Your task to perform on an android device: Go to ESPN.com Image 0: 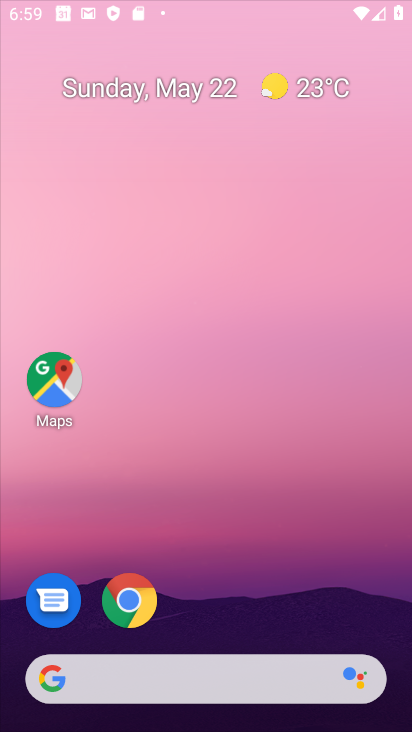
Step 0: click (280, 320)
Your task to perform on an android device: Go to ESPN.com Image 1: 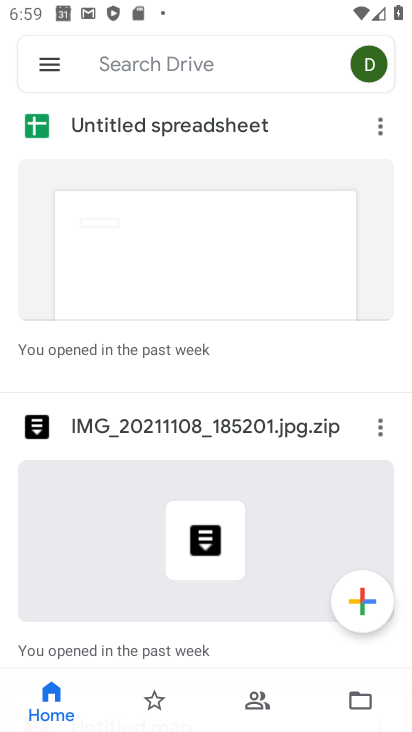
Step 1: press home button
Your task to perform on an android device: Go to ESPN.com Image 2: 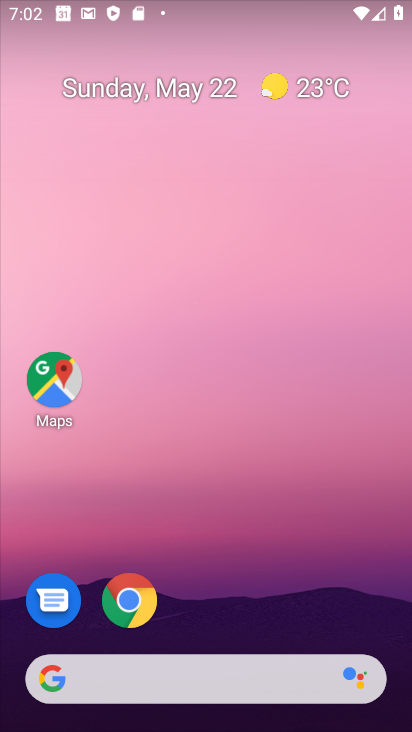
Step 2: drag from (289, 525) to (203, 159)
Your task to perform on an android device: Go to ESPN.com Image 3: 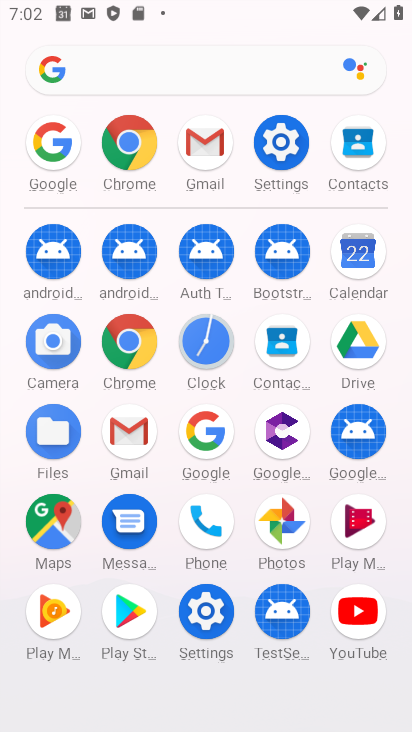
Step 3: click (63, 146)
Your task to perform on an android device: Go to ESPN.com Image 4: 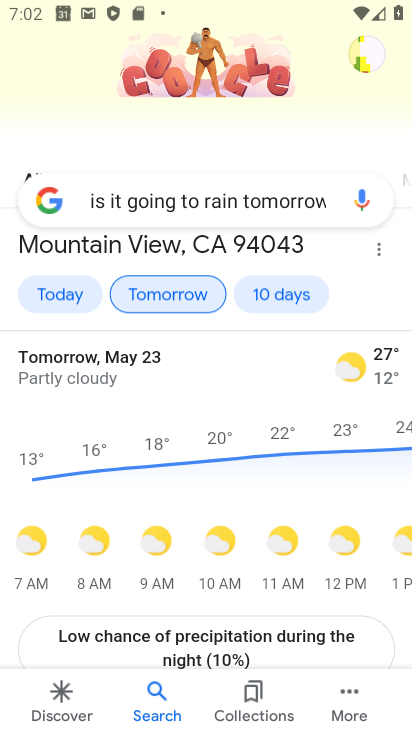
Step 4: press back button
Your task to perform on an android device: Go to ESPN.com Image 5: 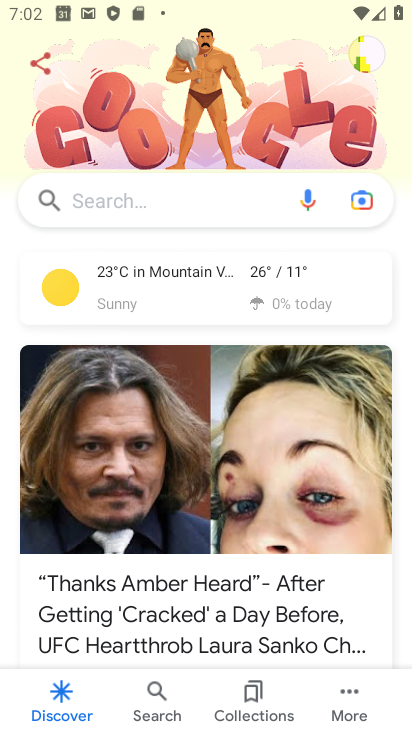
Step 5: click (174, 190)
Your task to perform on an android device: Go to ESPN.com Image 6: 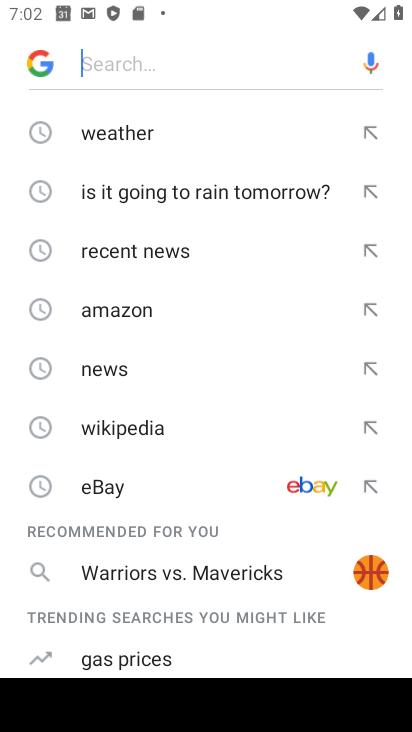
Step 6: drag from (151, 549) to (151, 174)
Your task to perform on an android device: Go to ESPN.com Image 7: 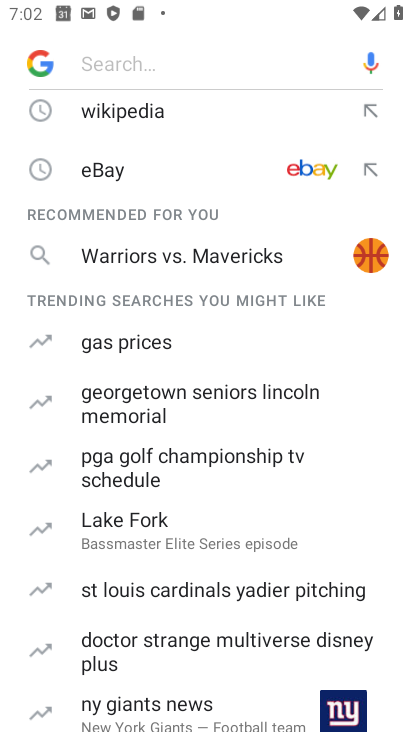
Step 7: type "espn.com"
Your task to perform on an android device: Go to ESPN.com Image 8: 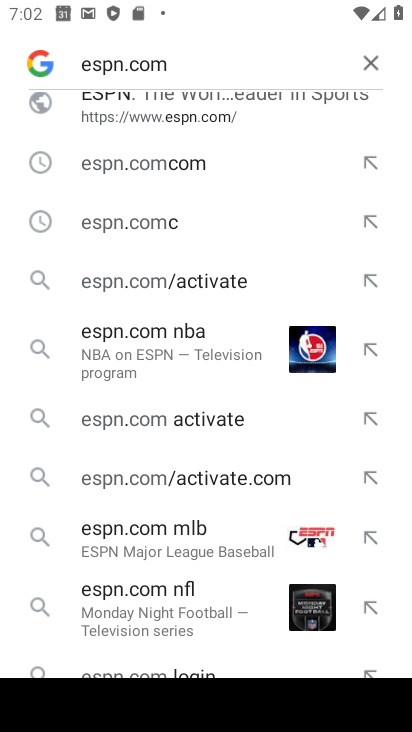
Step 8: click (144, 114)
Your task to perform on an android device: Go to ESPN.com Image 9: 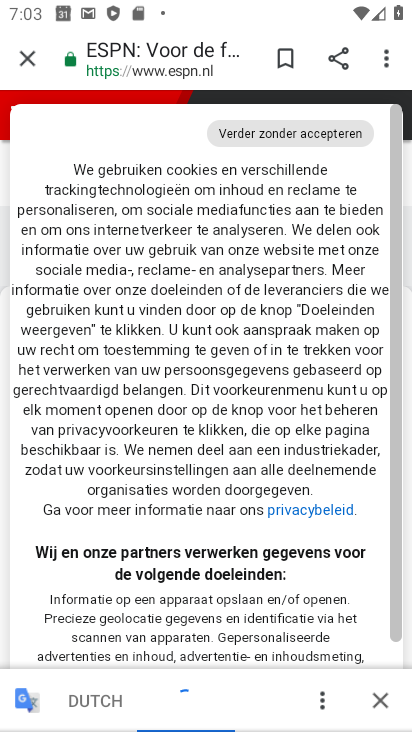
Step 9: task complete